Your task to perform on an android device: Search for Italian restaurants on Maps Image 0: 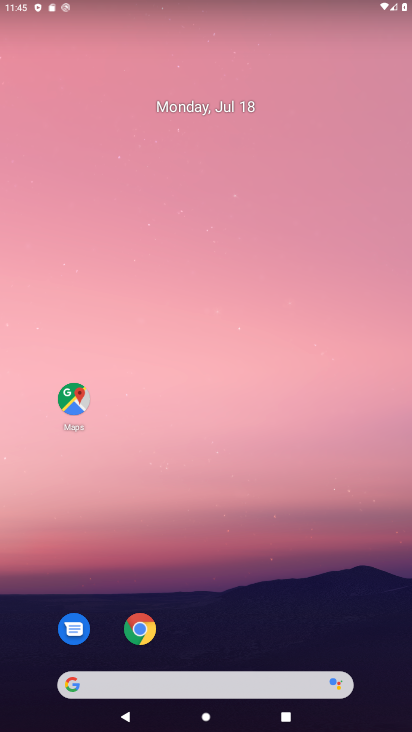
Step 0: drag from (255, 620) to (319, 107)
Your task to perform on an android device: Search for Italian restaurants on Maps Image 1: 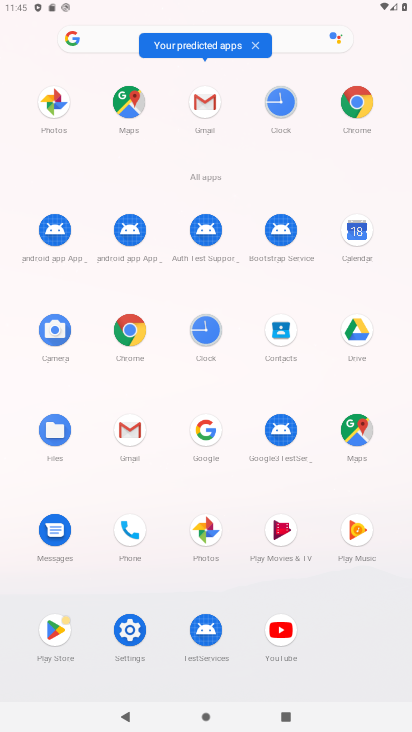
Step 1: click (345, 439)
Your task to perform on an android device: Search for Italian restaurants on Maps Image 2: 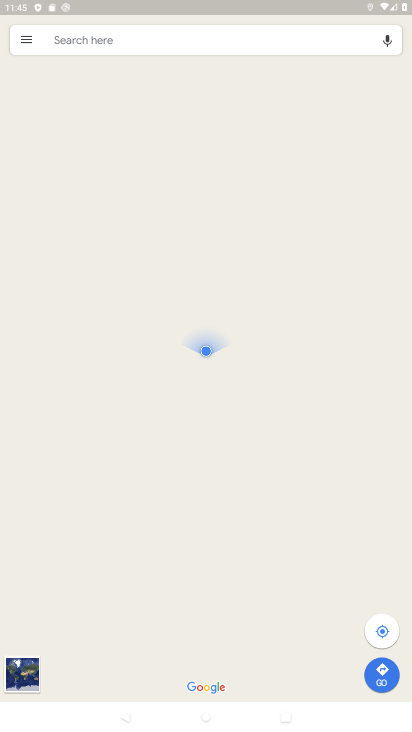
Step 2: click (158, 25)
Your task to perform on an android device: Search for Italian restaurants on Maps Image 3: 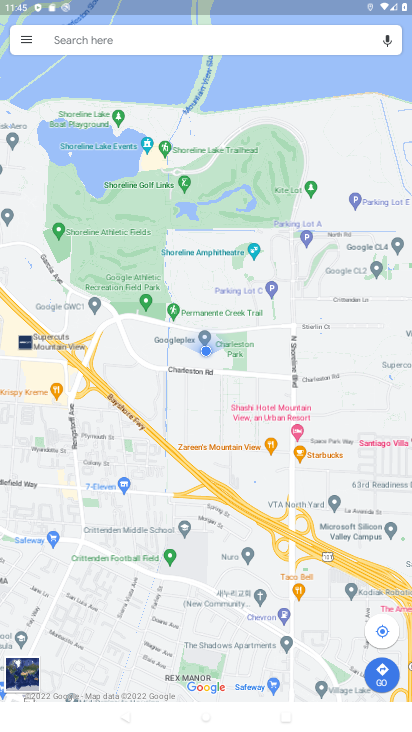
Step 3: click (95, 42)
Your task to perform on an android device: Search for Italian restaurants on Maps Image 4: 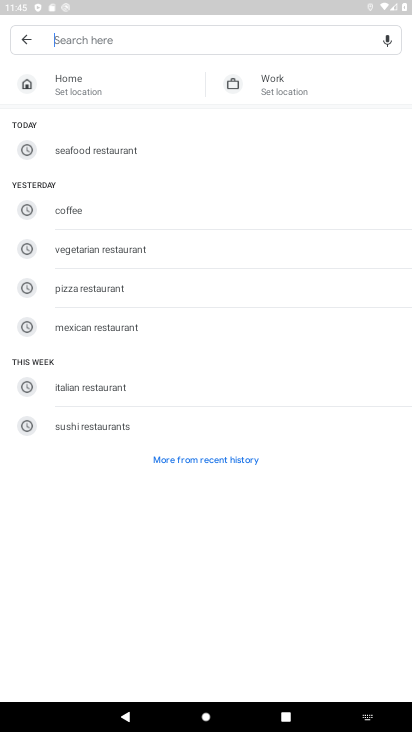
Step 4: type "Italian restaurants "
Your task to perform on an android device: Search for Italian restaurants on Maps Image 5: 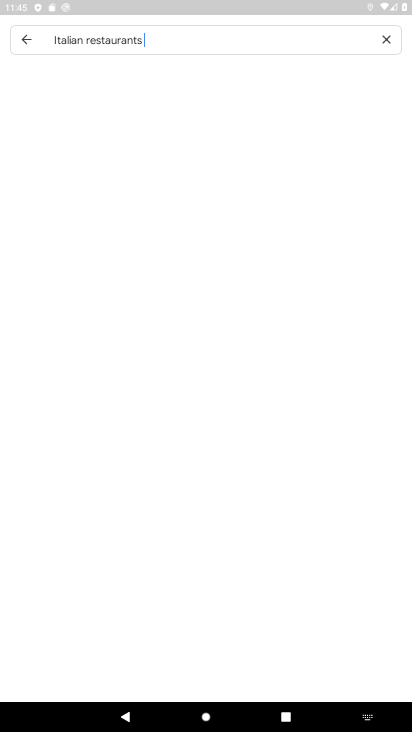
Step 5: type ""
Your task to perform on an android device: Search for Italian restaurants on Maps Image 6: 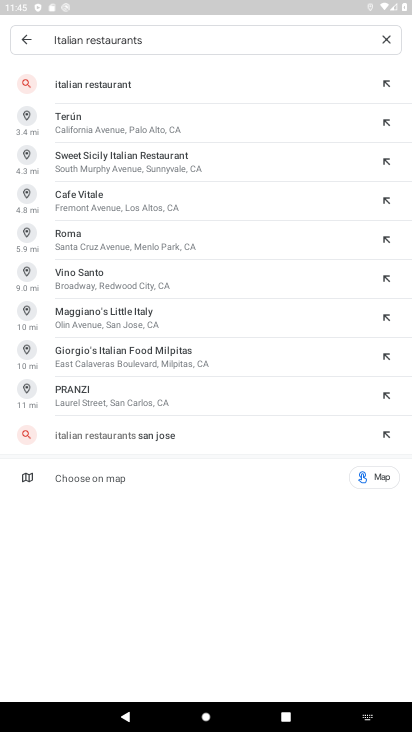
Step 6: click (121, 79)
Your task to perform on an android device: Search for Italian restaurants on Maps Image 7: 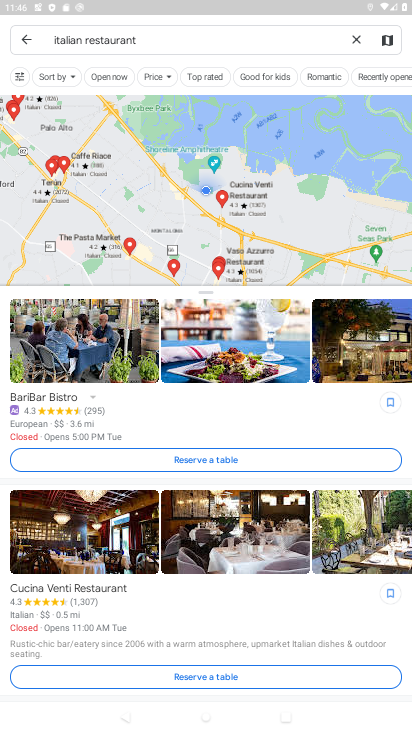
Step 7: task complete